Your task to perform on an android device: Go to display settings Image 0: 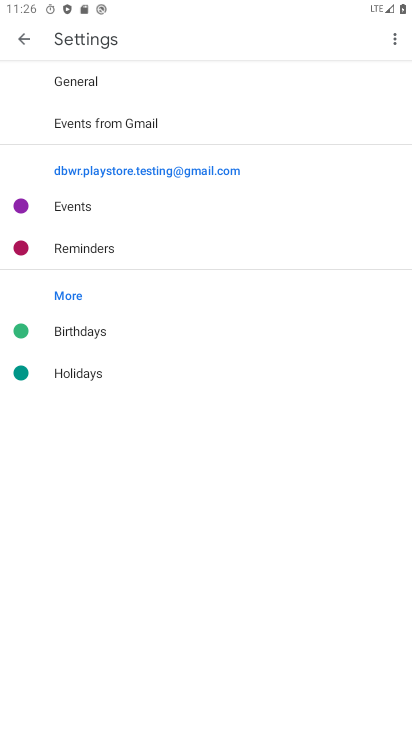
Step 0: press home button
Your task to perform on an android device: Go to display settings Image 1: 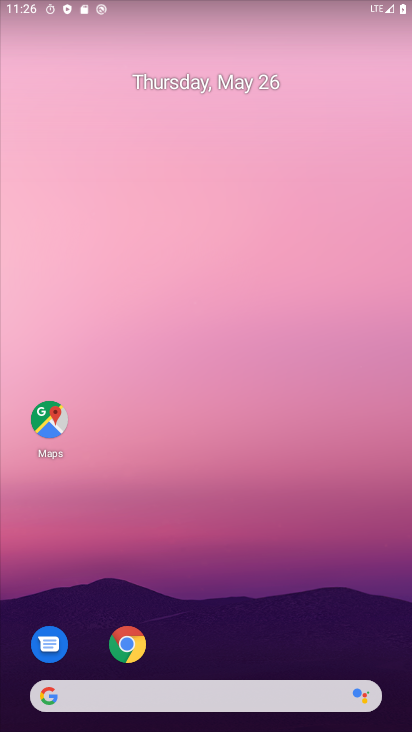
Step 1: drag from (112, 726) to (138, 177)
Your task to perform on an android device: Go to display settings Image 2: 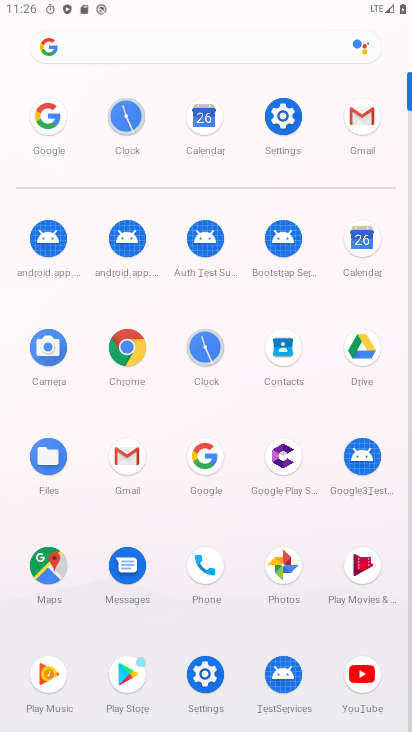
Step 2: click (283, 119)
Your task to perform on an android device: Go to display settings Image 3: 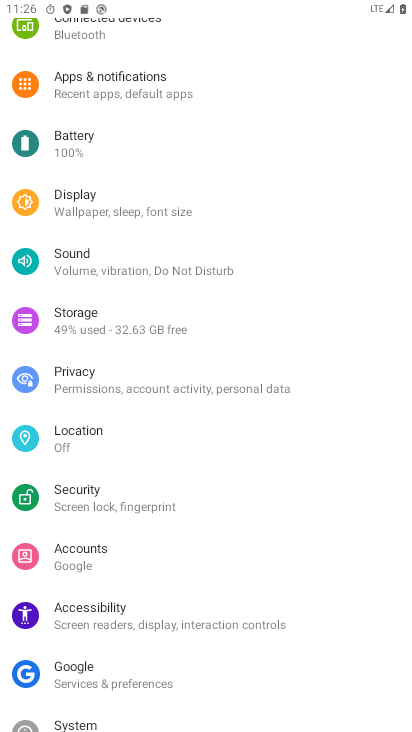
Step 3: click (133, 207)
Your task to perform on an android device: Go to display settings Image 4: 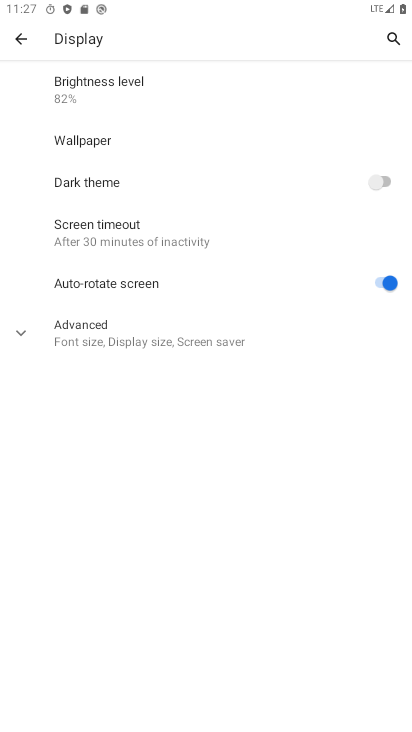
Step 4: task complete